Your task to perform on an android device: open the mobile data screen to see how much data has been used Image 0: 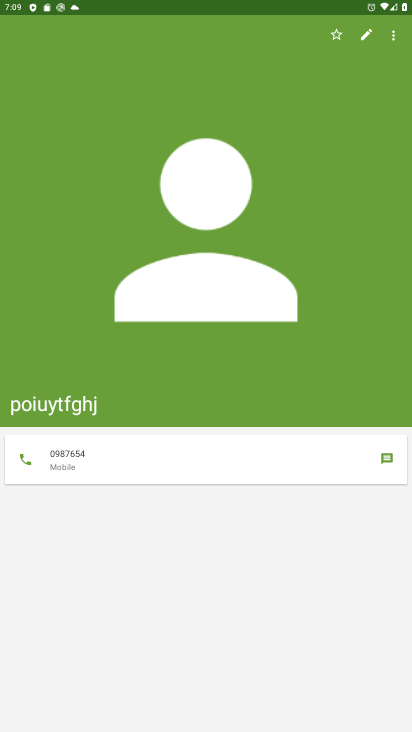
Step 0: press home button
Your task to perform on an android device: open the mobile data screen to see how much data has been used Image 1: 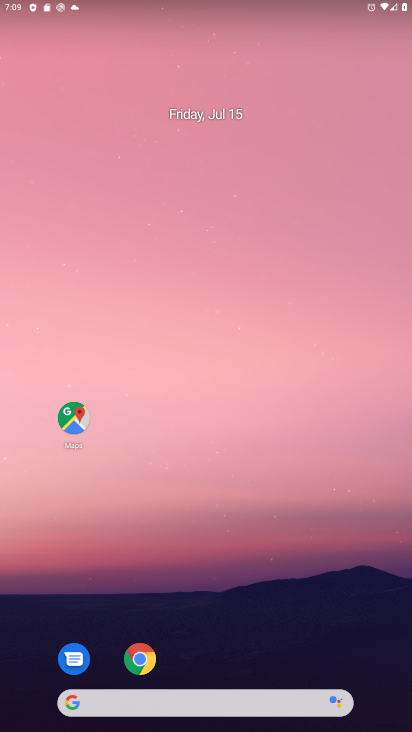
Step 1: drag from (383, 668) to (300, 206)
Your task to perform on an android device: open the mobile data screen to see how much data has been used Image 2: 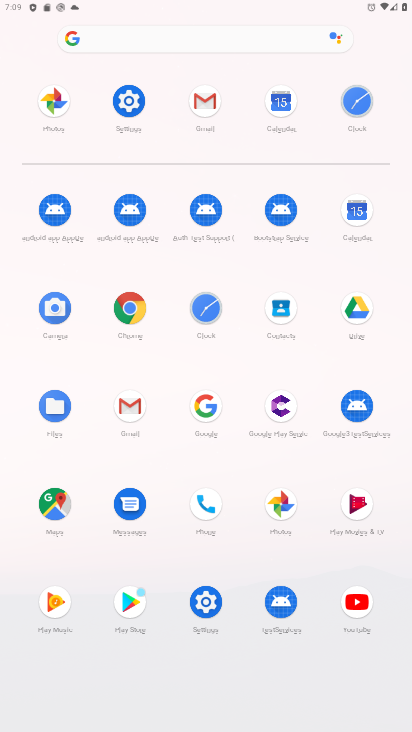
Step 2: click (206, 602)
Your task to perform on an android device: open the mobile data screen to see how much data has been used Image 3: 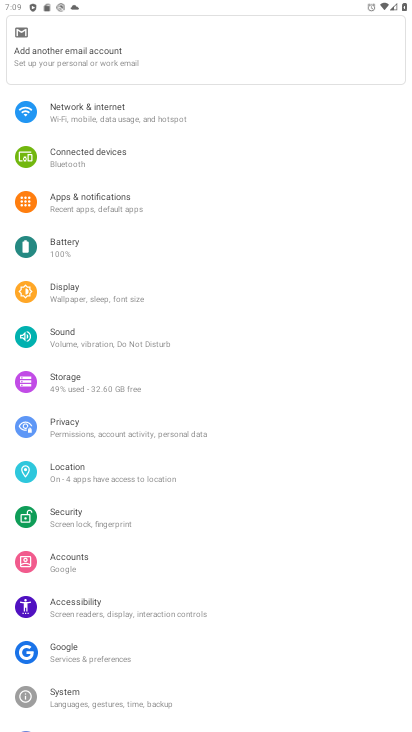
Step 3: click (78, 106)
Your task to perform on an android device: open the mobile data screen to see how much data has been used Image 4: 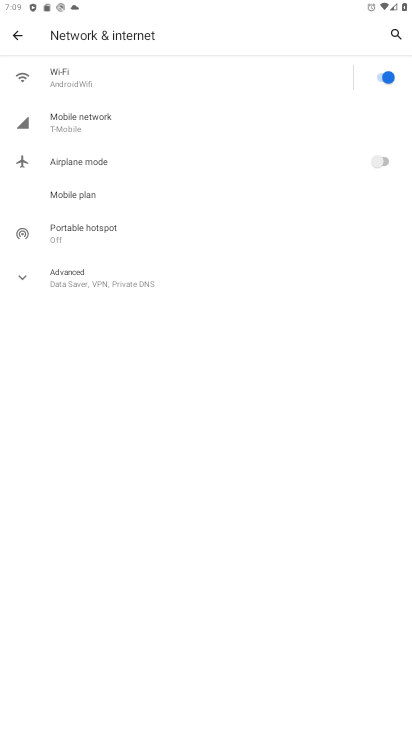
Step 4: click (70, 122)
Your task to perform on an android device: open the mobile data screen to see how much data has been used Image 5: 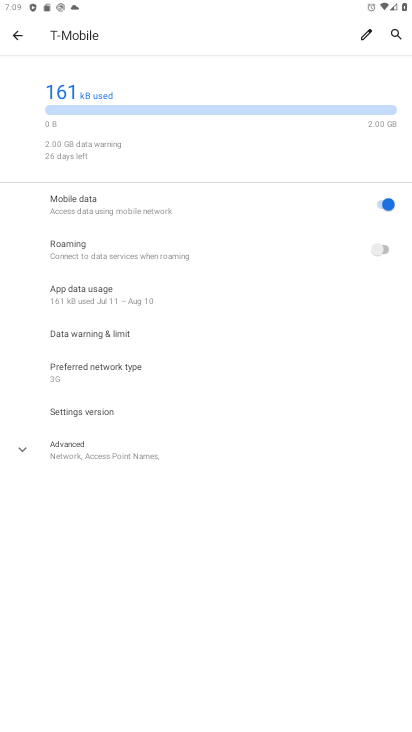
Step 5: task complete